Your task to perform on an android device: Open the phone app and click the voicemail tab. Image 0: 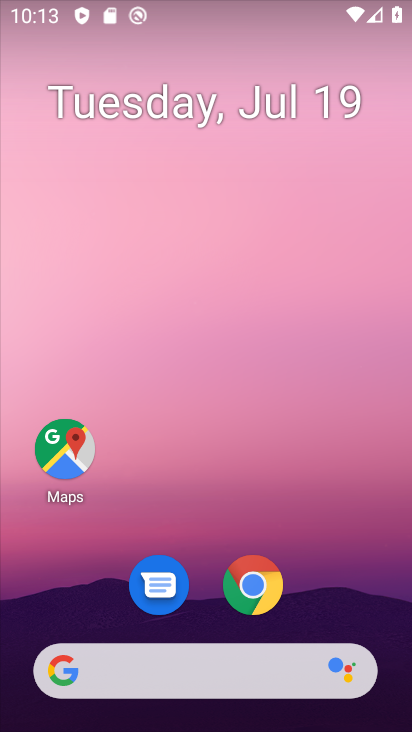
Step 0: drag from (322, 591) to (310, 47)
Your task to perform on an android device: Open the phone app and click the voicemail tab. Image 1: 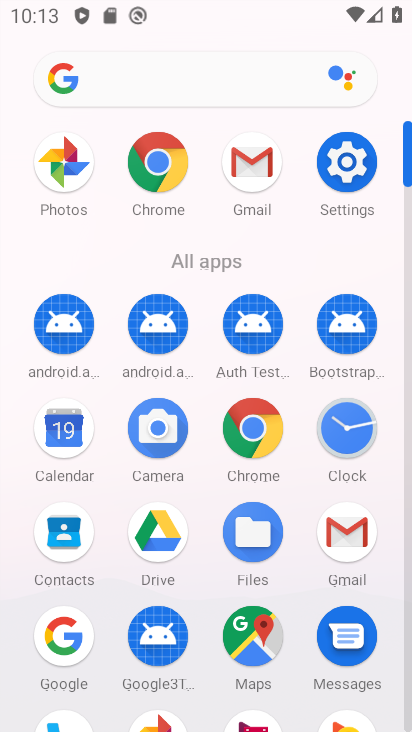
Step 1: drag from (199, 486) to (220, 199)
Your task to perform on an android device: Open the phone app and click the voicemail tab. Image 2: 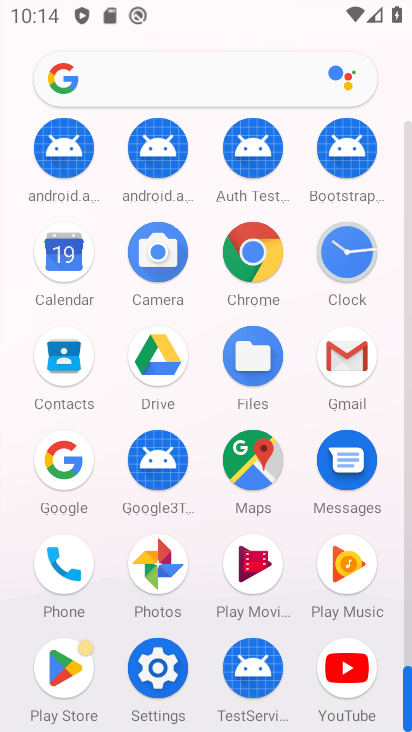
Step 2: click (56, 557)
Your task to perform on an android device: Open the phone app and click the voicemail tab. Image 3: 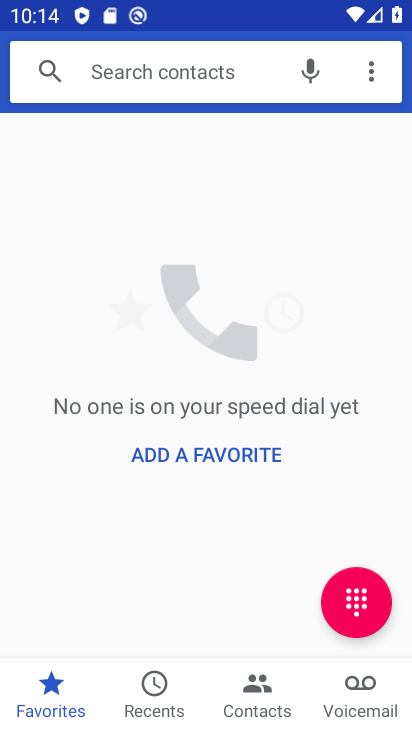
Step 3: click (357, 694)
Your task to perform on an android device: Open the phone app and click the voicemail tab. Image 4: 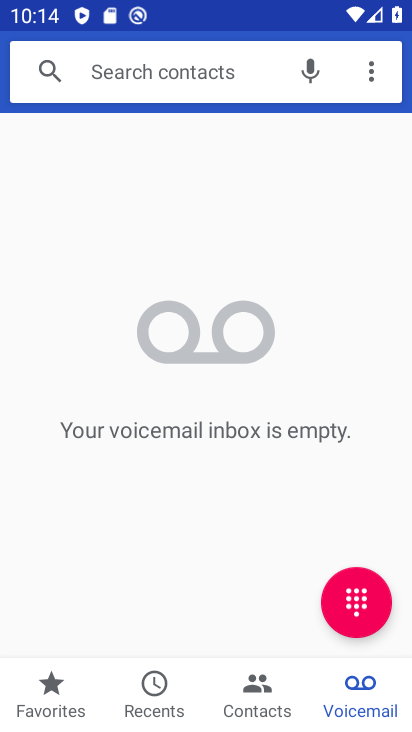
Step 4: task complete